Your task to perform on an android device: Go to wifi settings Image 0: 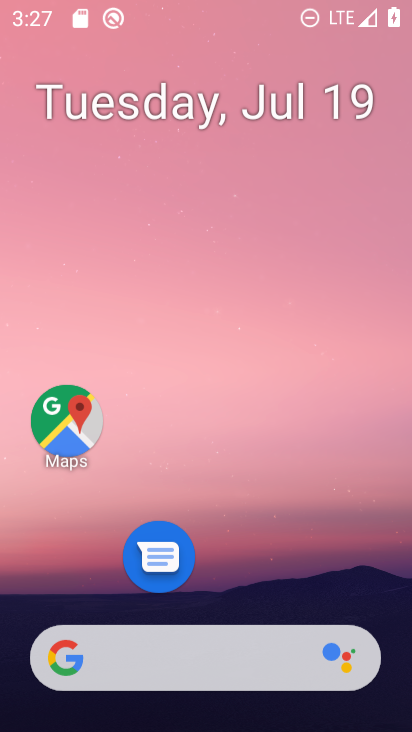
Step 0: press home button
Your task to perform on an android device: Go to wifi settings Image 1: 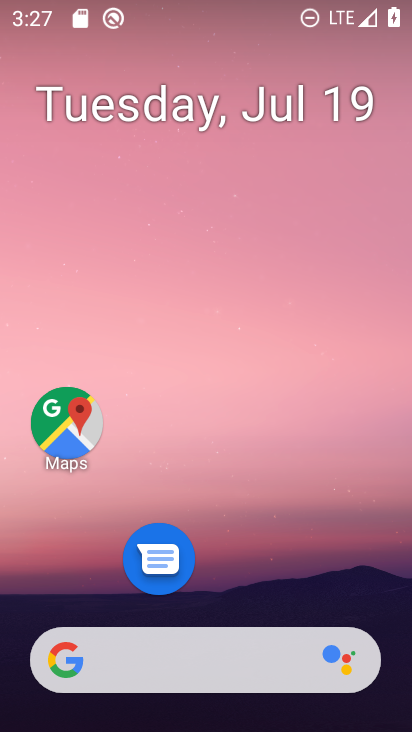
Step 1: drag from (184, 629) to (242, 0)
Your task to perform on an android device: Go to wifi settings Image 2: 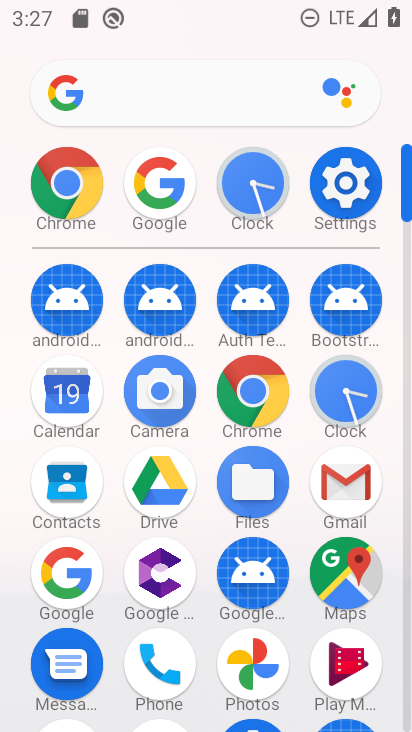
Step 2: click (343, 200)
Your task to perform on an android device: Go to wifi settings Image 3: 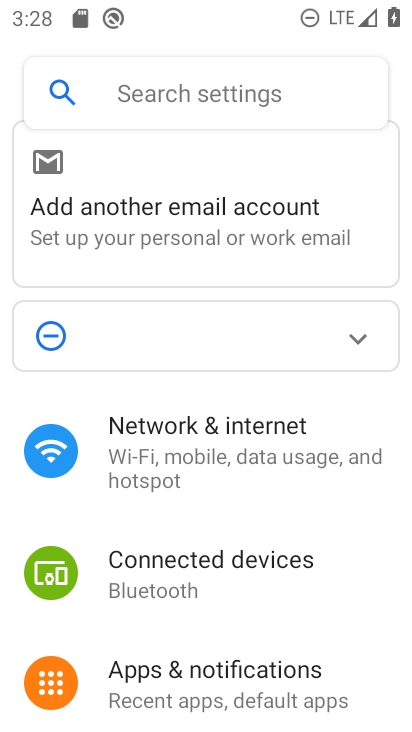
Step 3: click (217, 450)
Your task to perform on an android device: Go to wifi settings Image 4: 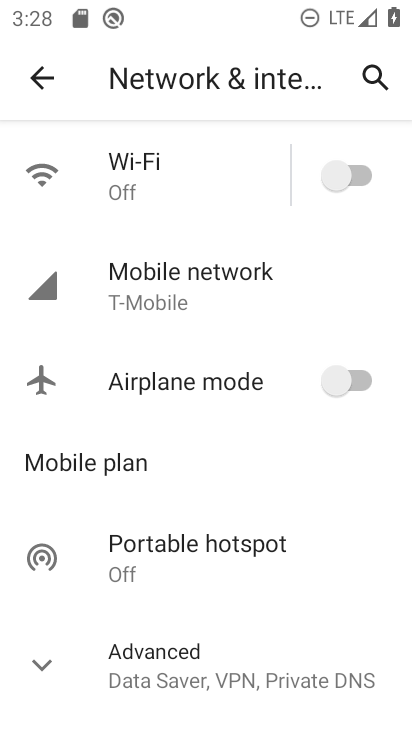
Step 4: click (176, 205)
Your task to perform on an android device: Go to wifi settings Image 5: 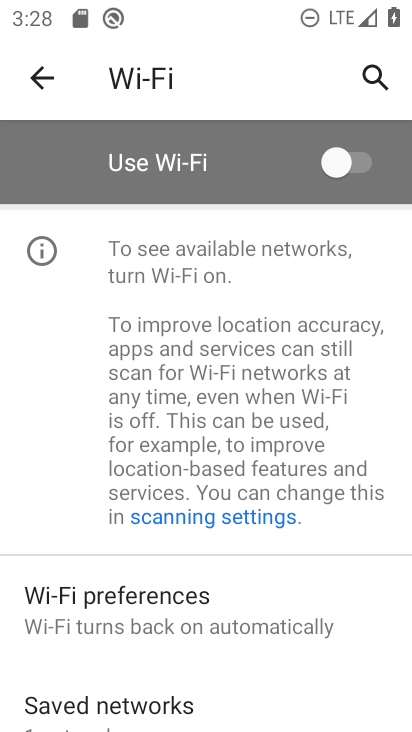
Step 5: task complete